Your task to perform on an android device: show emergency info Image 0: 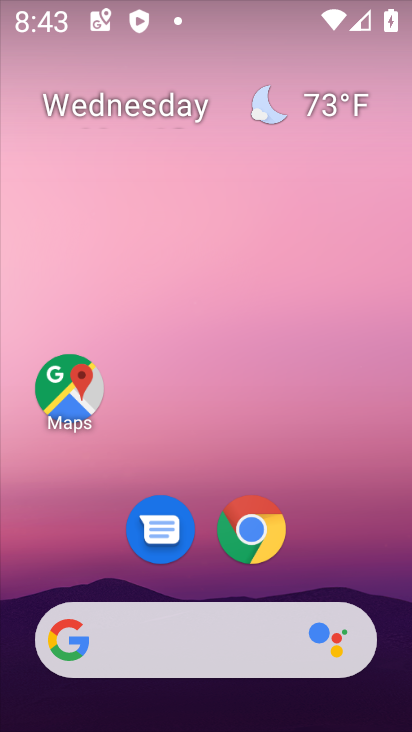
Step 0: press home button
Your task to perform on an android device: show emergency info Image 1: 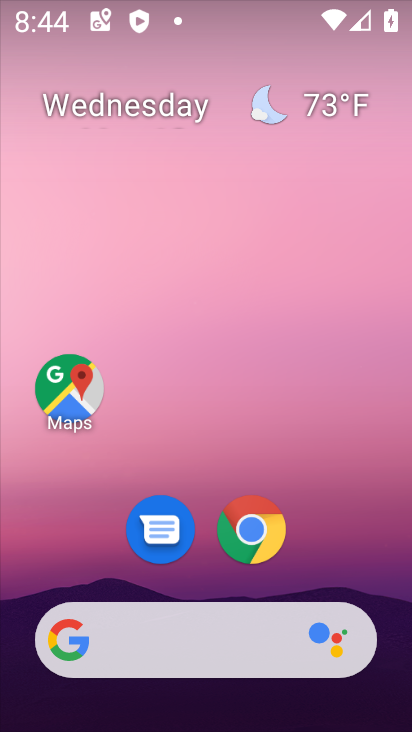
Step 1: drag from (357, 551) to (354, 204)
Your task to perform on an android device: show emergency info Image 2: 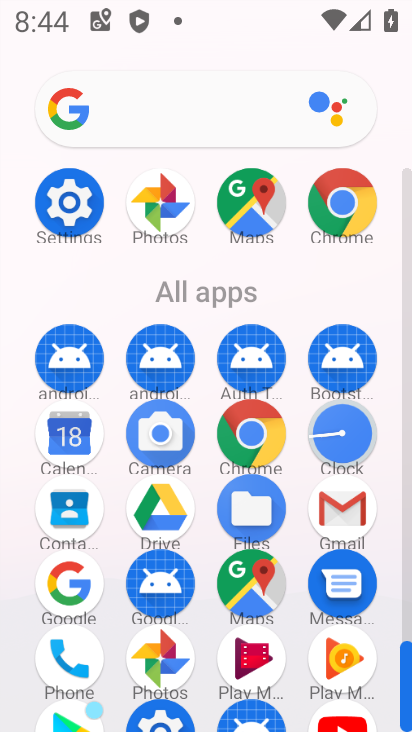
Step 2: click (347, 214)
Your task to perform on an android device: show emergency info Image 3: 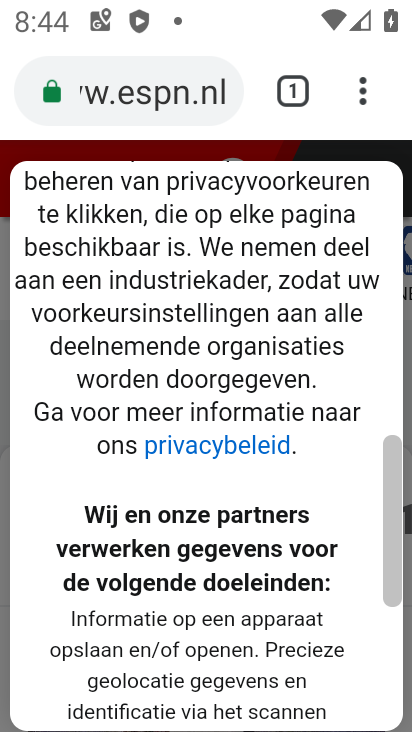
Step 3: press home button
Your task to perform on an android device: show emergency info Image 4: 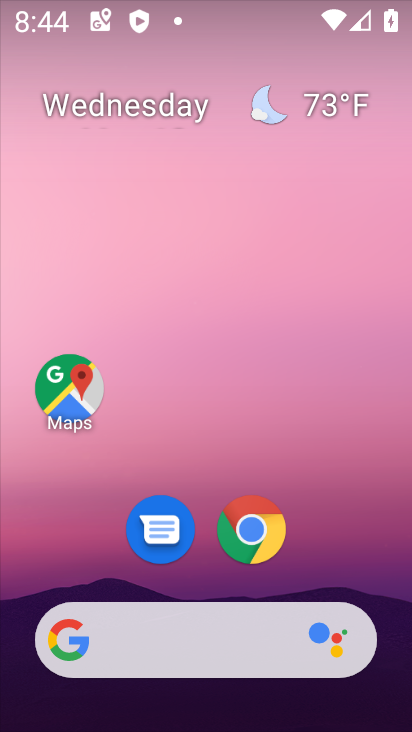
Step 4: drag from (370, 541) to (357, 149)
Your task to perform on an android device: show emergency info Image 5: 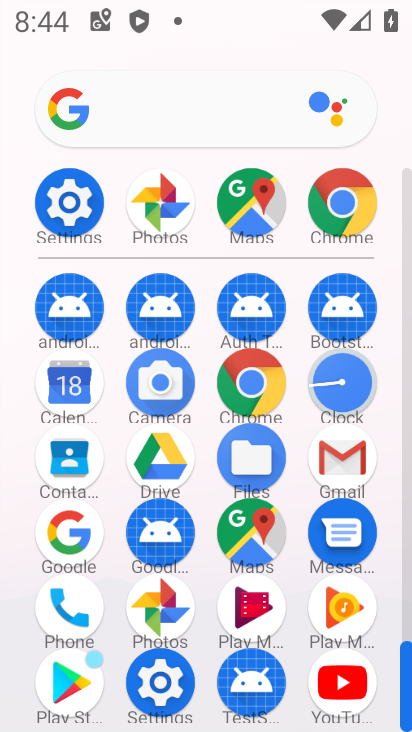
Step 5: click (58, 207)
Your task to perform on an android device: show emergency info Image 6: 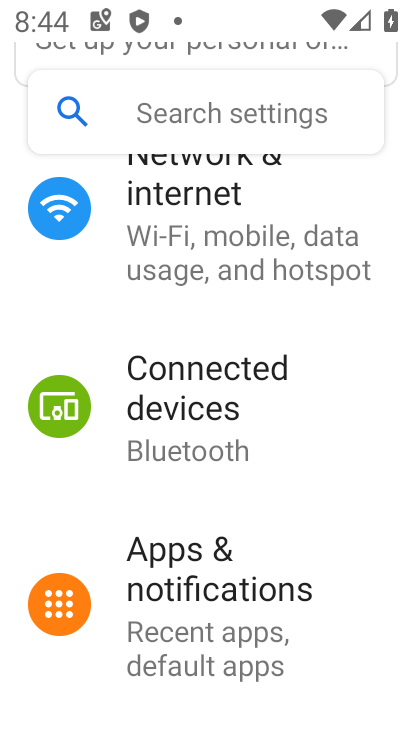
Step 6: drag from (312, 545) to (326, 445)
Your task to perform on an android device: show emergency info Image 7: 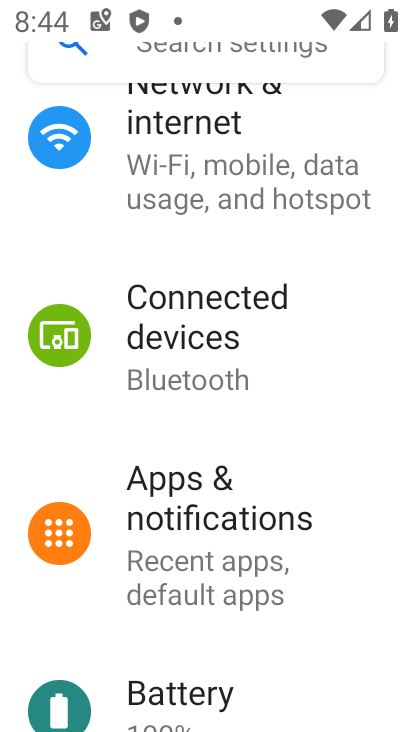
Step 7: drag from (345, 629) to (371, 451)
Your task to perform on an android device: show emergency info Image 8: 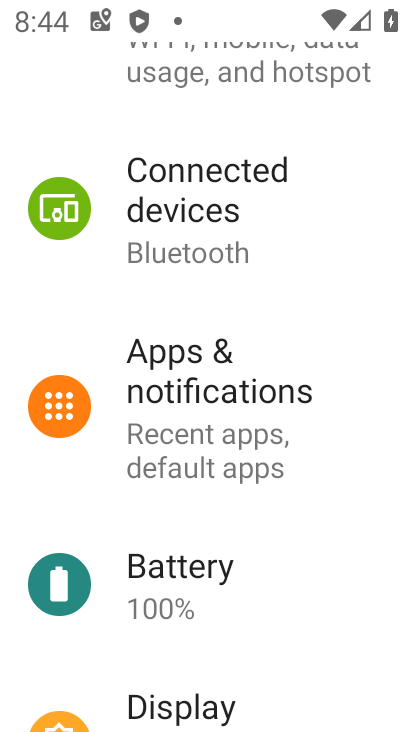
Step 8: drag from (343, 635) to (342, 494)
Your task to perform on an android device: show emergency info Image 9: 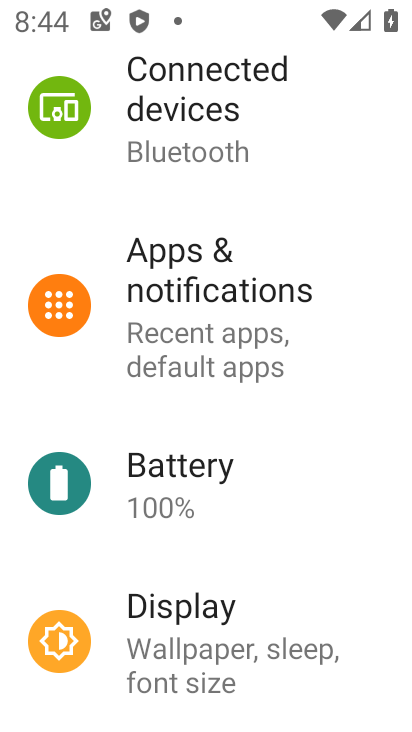
Step 9: drag from (334, 654) to (342, 469)
Your task to perform on an android device: show emergency info Image 10: 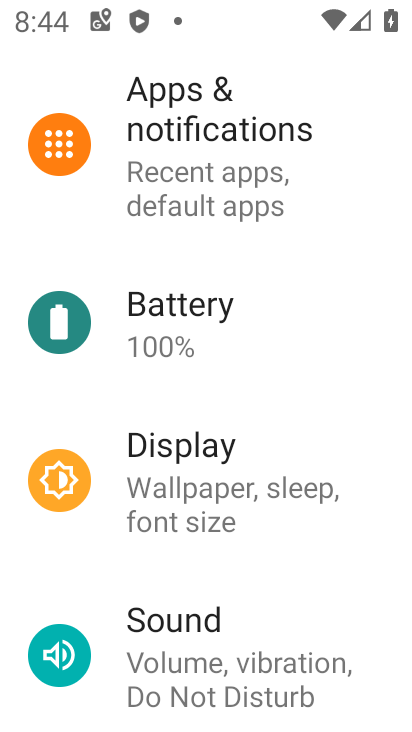
Step 10: drag from (350, 631) to (368, 462)
Your task to perform on an android device: show emergency info Image 11: 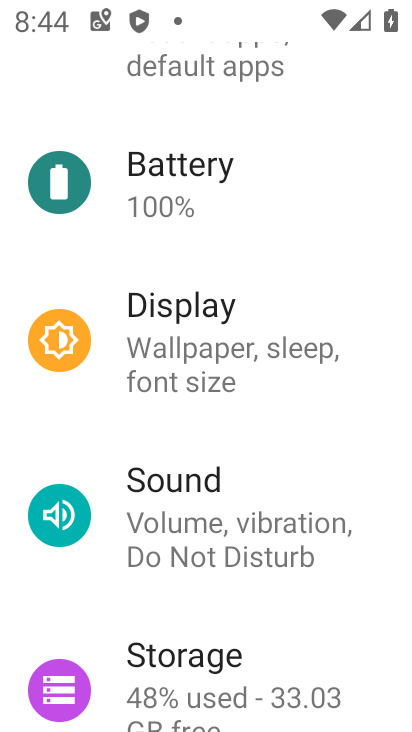
Step 11: drag from (353, 631) to (357, 494)
Your task to perform on an android device: show emergency info Image 12: 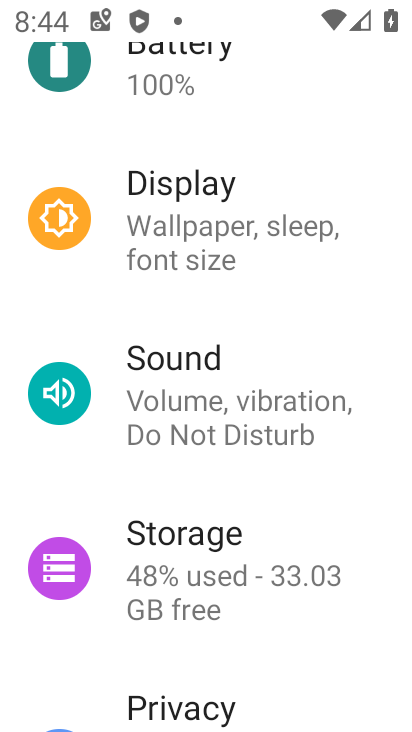
Step 12: drag from (338, 657) to (335, 519)
Your task to perform on an android device: show emergency info Image 13: 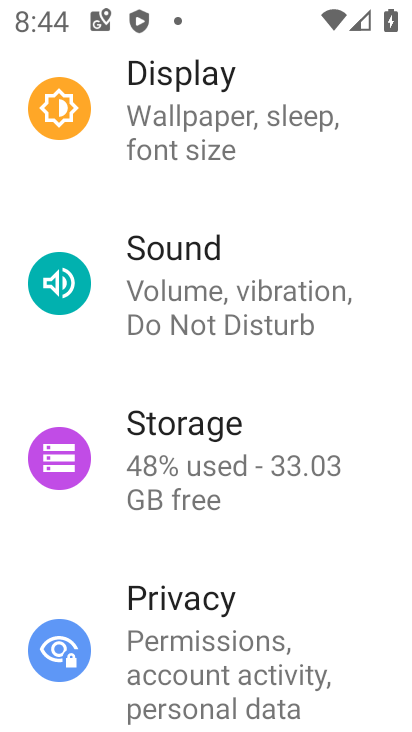
Step 13: drag from (349, 634) to (356, 498)
Your task to perform on an android device: show emergency info Image 14: 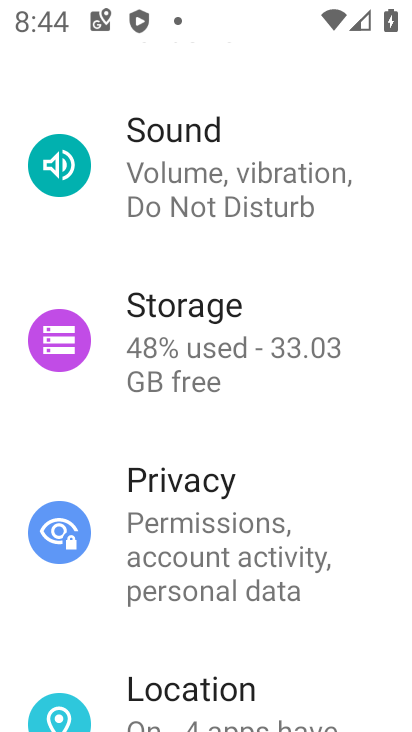
Step 14: drag from (341, 635) to (356, 455)
Your task to perform on an android device: show emergency info Image 15: 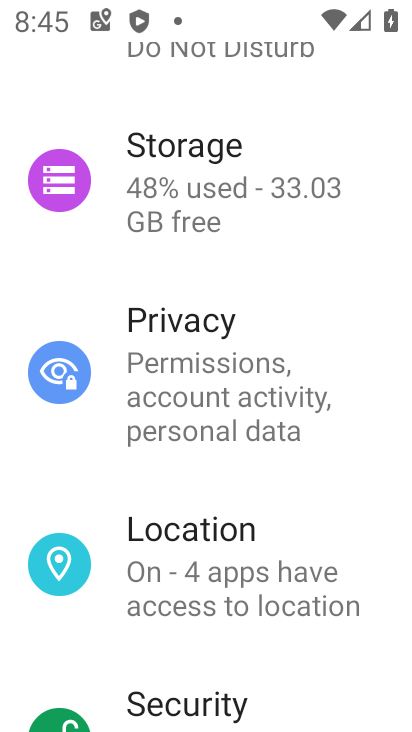
Step 15: drag from (346, 659) to (346, 508)
Your task to perform on an android device: show emergency info Image 16: 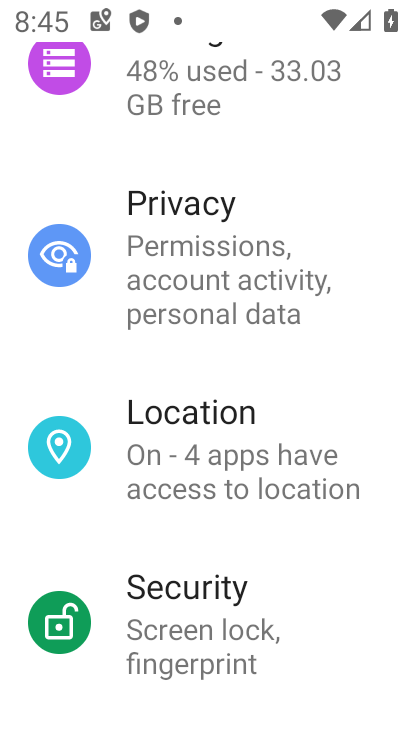
Step 16: drag from (350, 648) to (352, 547)
Your task to perform on an android device: show emergency info Image 17: 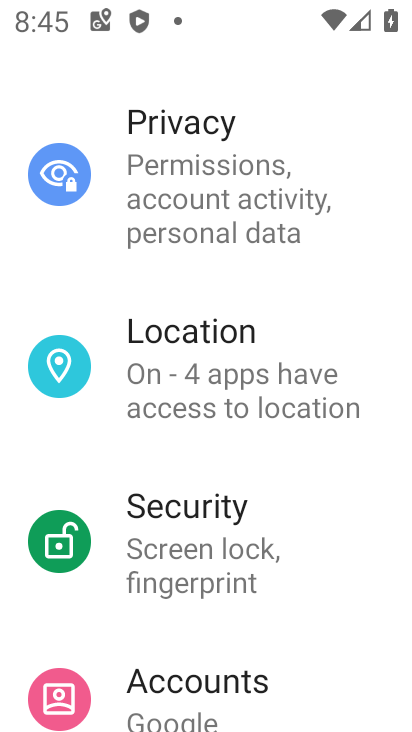
Step 17: drag from (334, 631) to (334, 511)
Your task to perform on an android device: show emergency info Image 18: 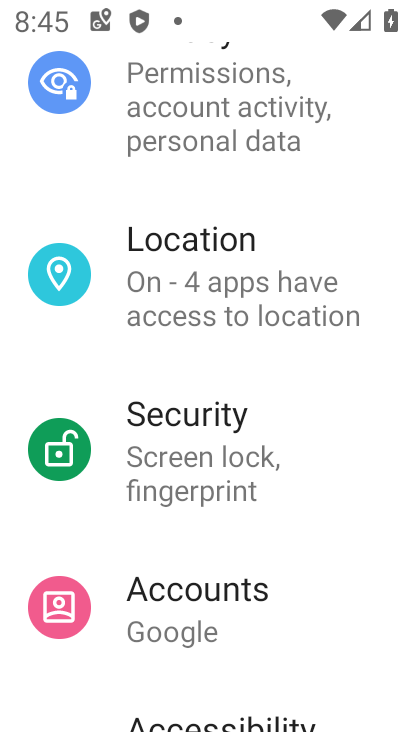
Step 18: drag from (337, 642) to (340, 590)
Your task to perform on an android device: show emergency info Image 19: 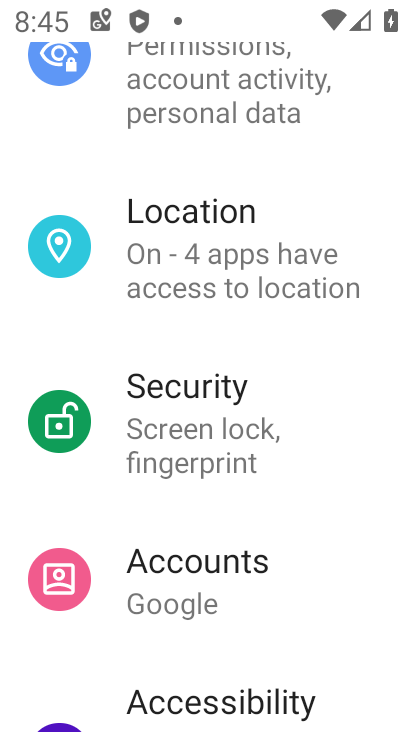
Step 19: drag from (351, 640) to (345, 542)
Your task to perform on an android device: show emergency info Image 20: 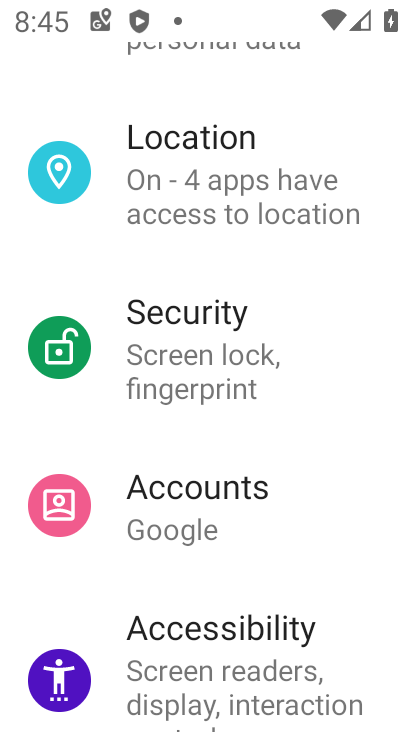
Step 20: drag from (365, 668) to (362, 543)
Your task to perform on an android device: show emergency info Image 21: 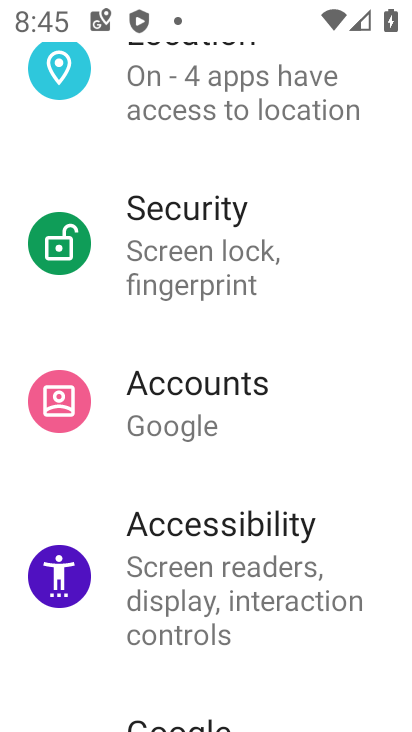
Step 21: drag from (367, 651) to (365, 570)
Your task to perform on an android device: show emergency info Image 22: 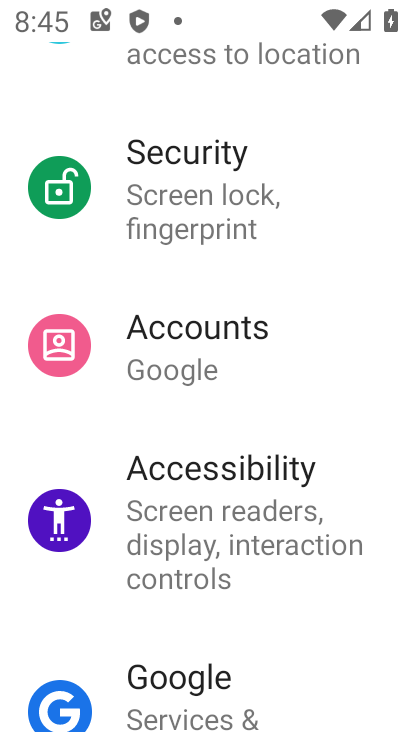
Step 22: drag from (360, 613) to (361, 552)
Your task to perform on an android device: show emergency info Image 23: 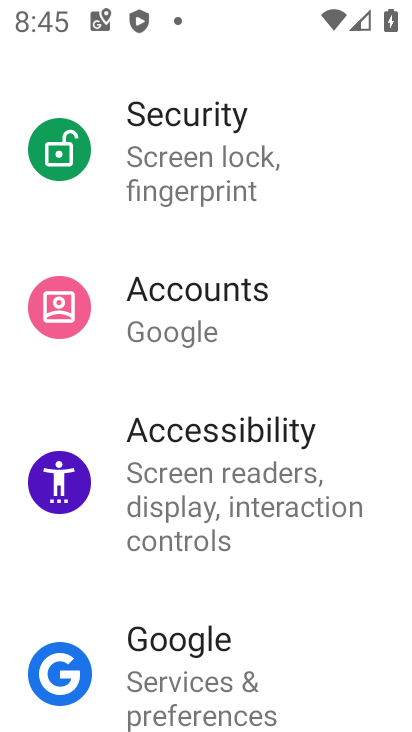
Step 23: drag from (355, 641) to (359, 553)
Your task to perform on an android device: show emergency info Image 24: 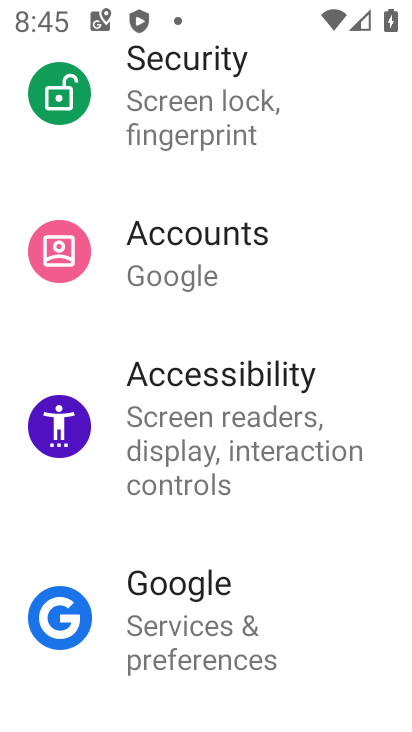
Step 24: drag from (356, 613) to (362, 528)
Your task to perform on an android device: show emergency info Image 25: 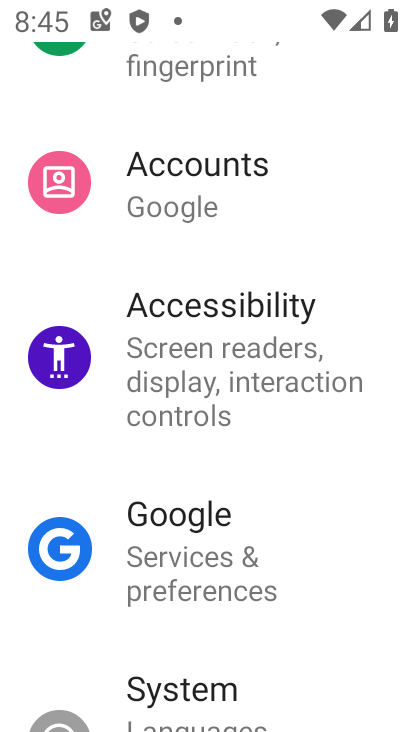
Step 25: drag from (367, 639) to (367, 554)
Your task to perform on an android device: show emergency info Image 26: 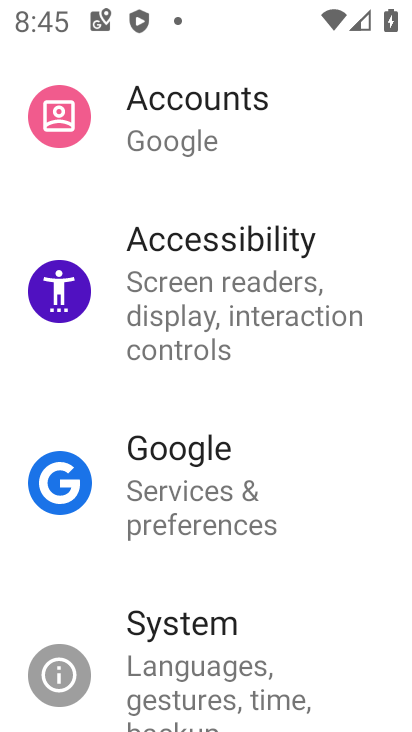
Step 26: drag from (354, 621) to (353, 558)
Your task to perform on an android device: show emergency info Image 27: 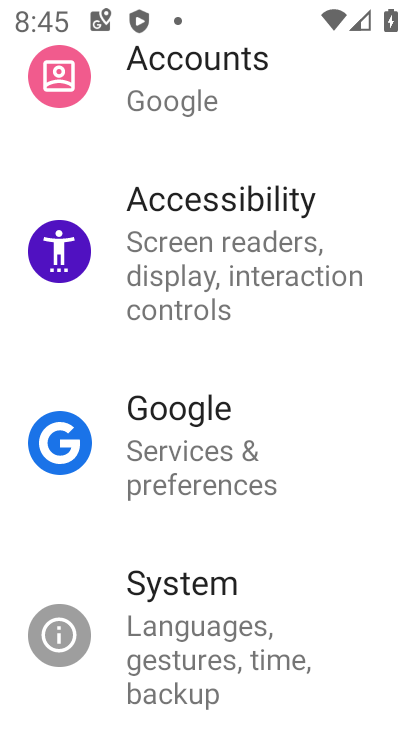
Step 27: drag from (350, 650) to (355, 552)
Your task to perform on an android device: show emergency info Image 28: 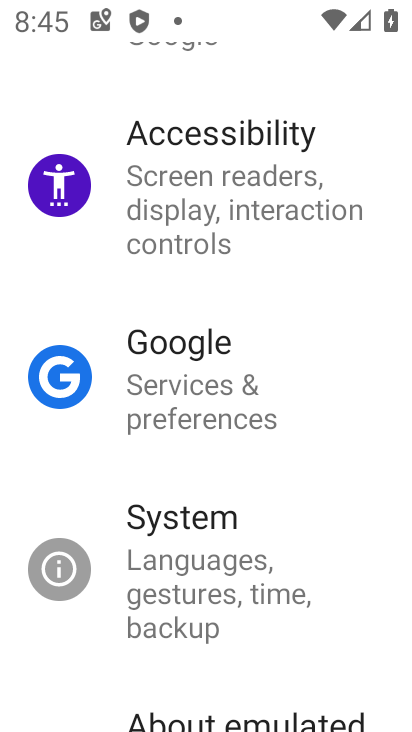
Step 28: drag from (341, 638) to (340, 539)
Your task to perform on an android device: show emergency info Image 29: 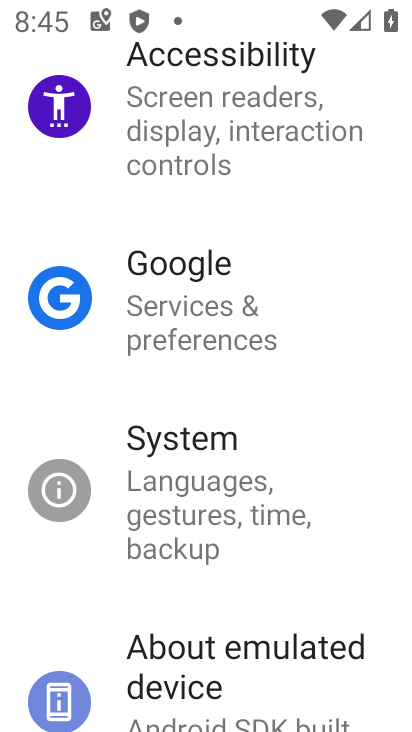
Step 29: click (322, 650)
Your task to perform on an android device: show emergency info Image 30: 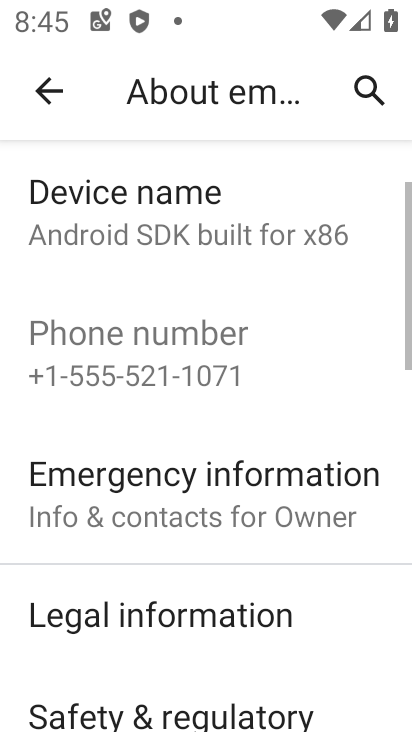
Step 30: click (298, 513)
Your task to perform on an android device: show emergency info Image 31: 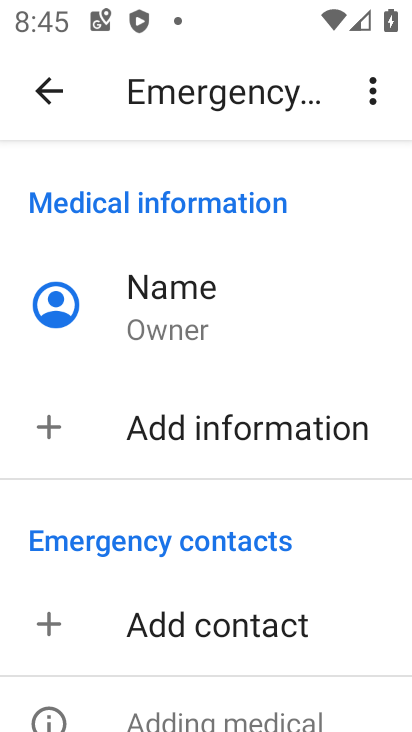
Step 31: task complete